Your task to perform on an android device: move a message to another label in the gmail app Image 0: 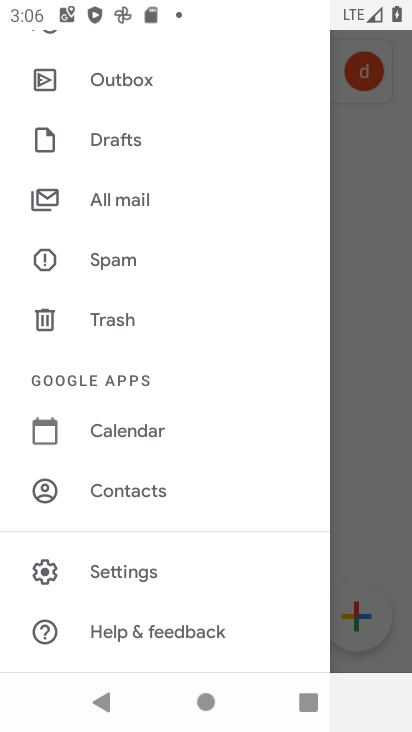
Step 0: click (106, 710)
Your task to perform on an android device: move a message to another label in the gmail app Image 1: 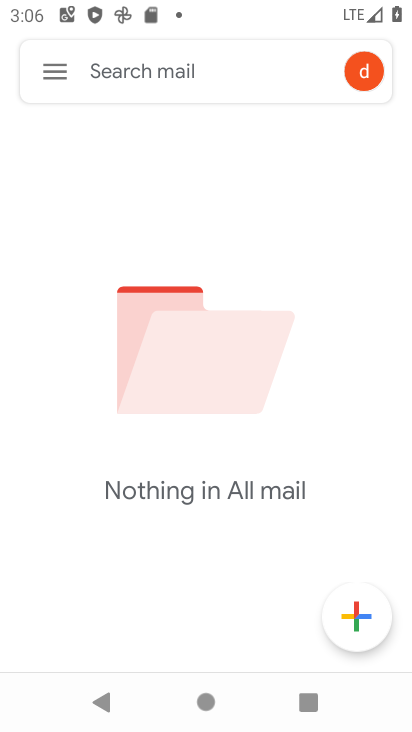
Step 1: click (60, 81)
Your task to perform on an android device: move a message to another label in the gmail app Image 2: 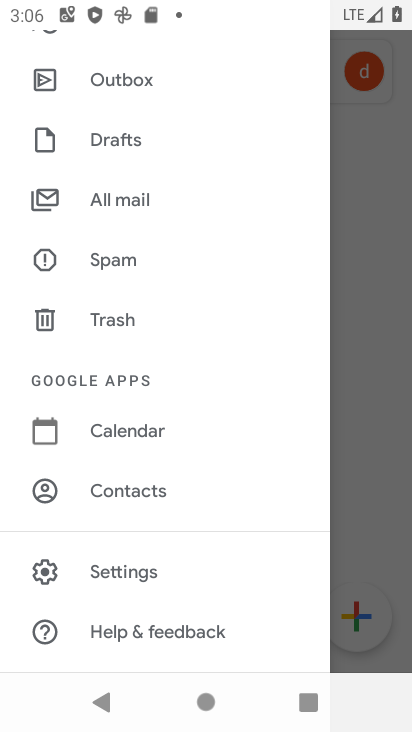
Step 2: click (388, 304)
Your task to perform on an android device: move a message to another label in the gmail app Image 3: 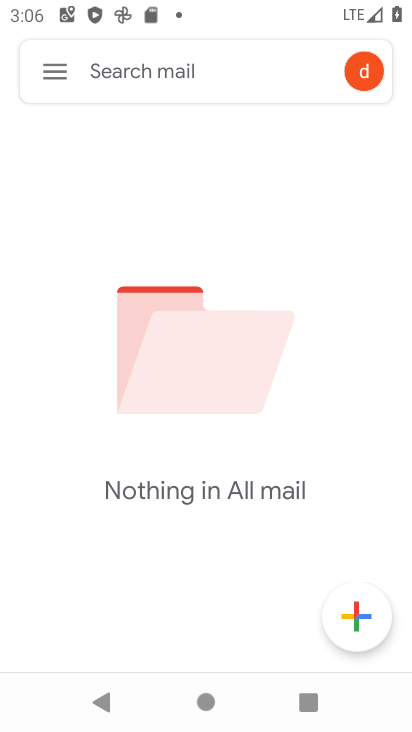
Step 3: task complete